Your task to perform on an android device: turn vacation reply on in the gmail app Image 0: 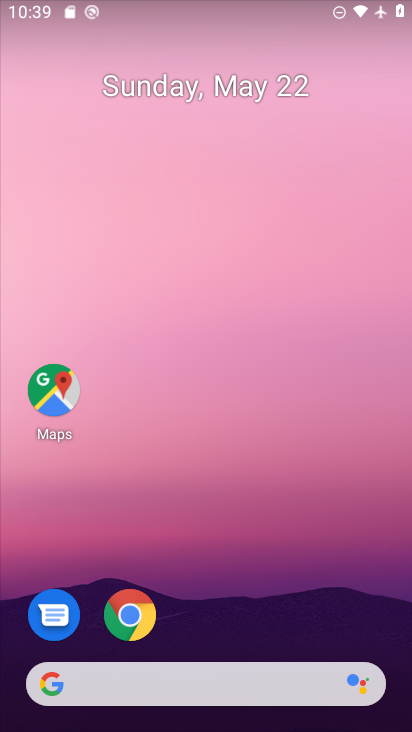
Step 0: drag from (297, 578) to (264, 81)
Your task to perform on an android device: turn vacation reply on in the gmail app Image 1: 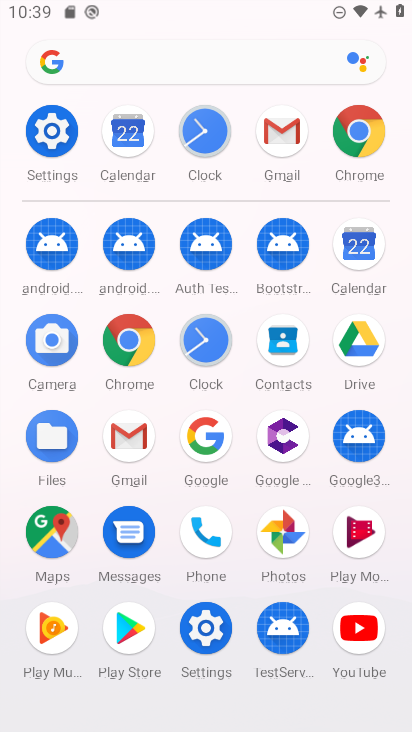
Step 1: click (268, 137)
Your task to perform on an android device: turn vacation reply on in the gmail app Image 2: 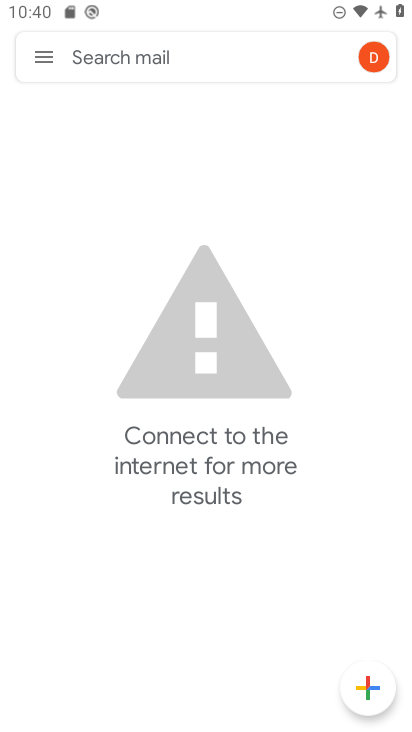
Step 2: click (40, 47)
Your task to perform on an android device: turn vacation reply on in the gmail app Image 3: 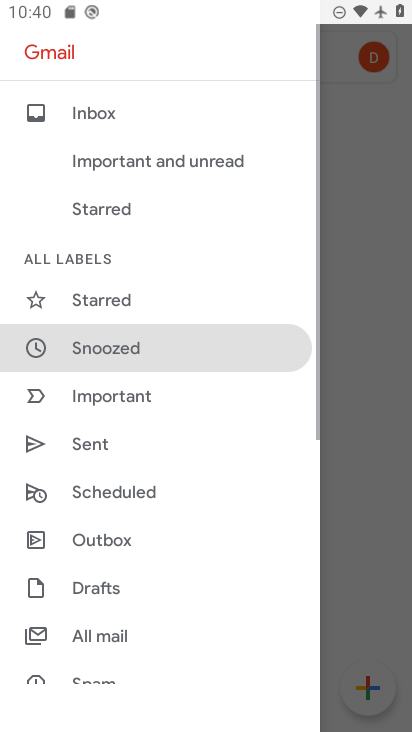
Step 3: drag from (145, 604) to (155, 6)
Your task to perform on an android device: turn vacation reply on in the gmail app Image 4: 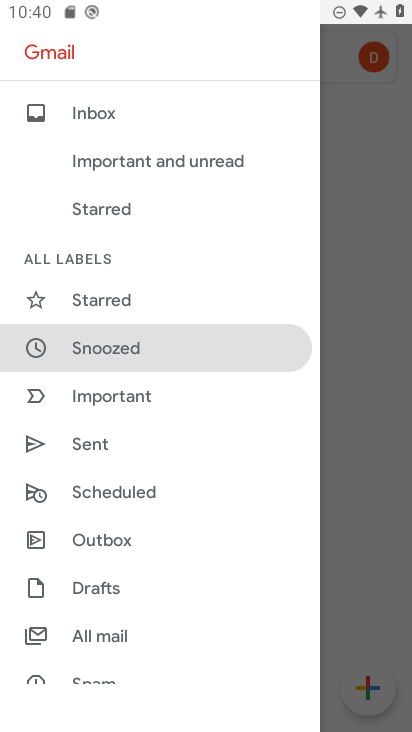
Step 4: drag from (105, 575) to (208, 118)
Your task to perform on an android device: turn vacation reply on in the gmail app Image 5: 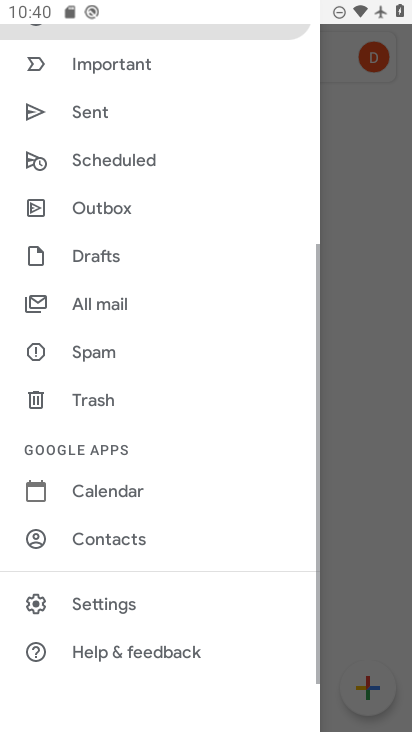
Step 5: click (118, 609)
Your task to perform on an android device: turn vacation reply on in the gmail app Image 6: 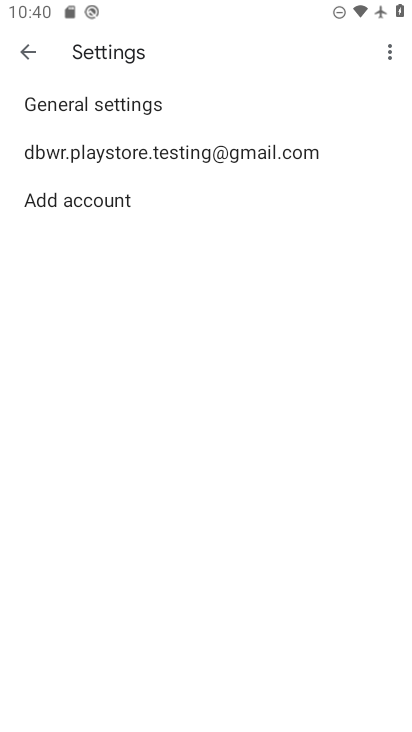
Step 6: click (114, 161)
Your task to perform on an android device: turn vacation reply on in the gmail app Image 7: 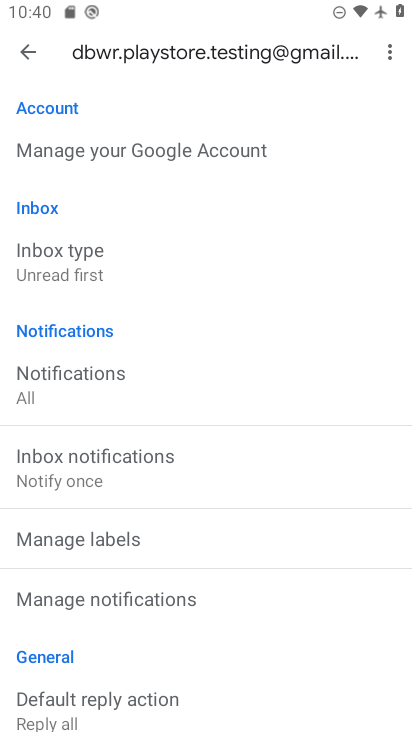
Step 7: drag from (281, 592) to (291, 36)
Your task to perform on an android device: turn vacation reply on in the gmail app Image 8: 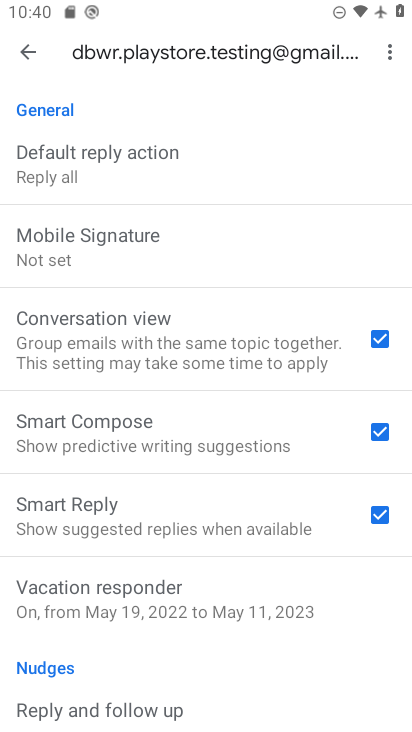
Step 8: click (166, 607)
Your task to perform on an android device: turn vacation reply on in the gmail app Image 9: 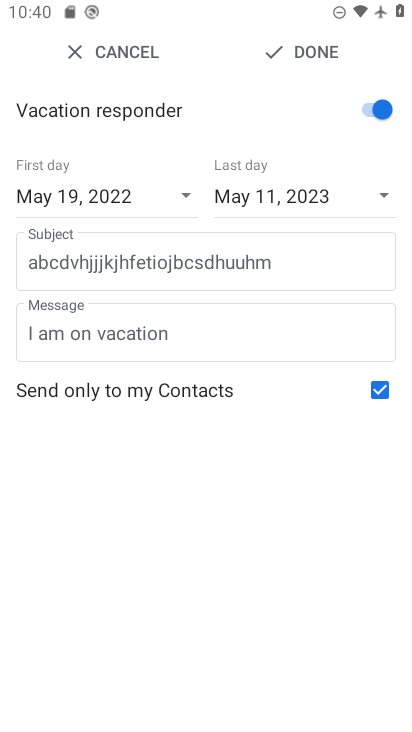
Step 9: task complete